Your task to perform on an android device: find snoozed emails in the gmail app Image 0: 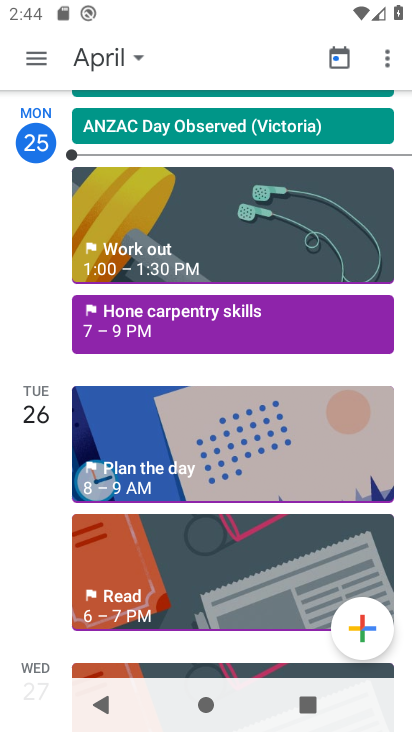
Step 0: press home button
Your task to perform on an android device: find snoozed emails in the gmail app Image 1: 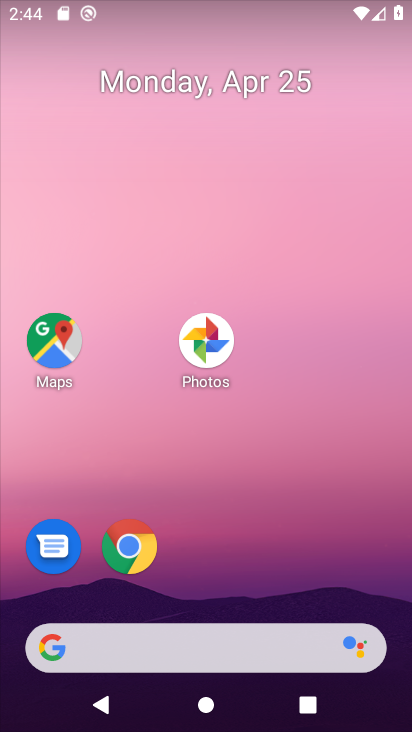
Step 1: drag from (301, 526) to (395, 165)
Your task to perform on an android device: find snoozed emails in the gmail app Image 2: 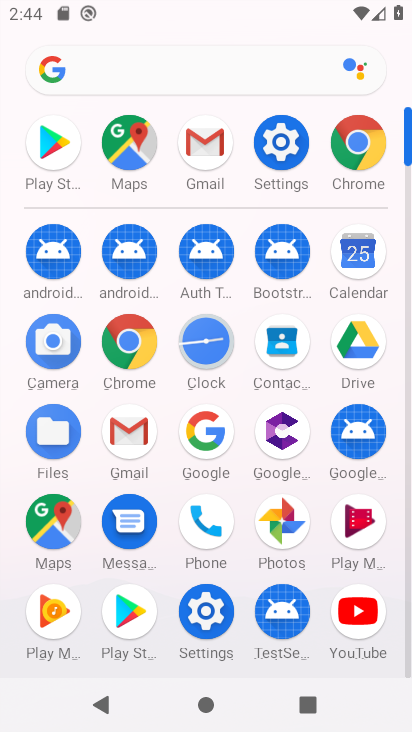
Step 2: click (201, 137)
Your task to perform on an android device: find snoozed emails in the gmail app Image 3: 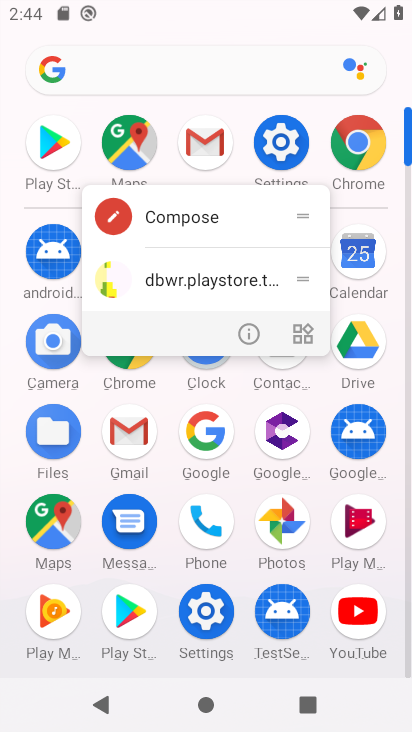
Step 3: click (200, 138)
Your task to perform on an android device: find snoozed emails in the gmail app Image 4: 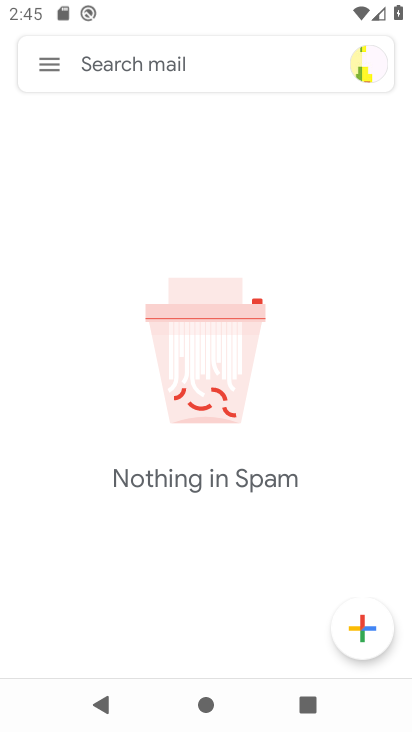
Step 4: click (55, 60)
Your task to perform on an android device: find snoozed emails in the gmail app Image 5: 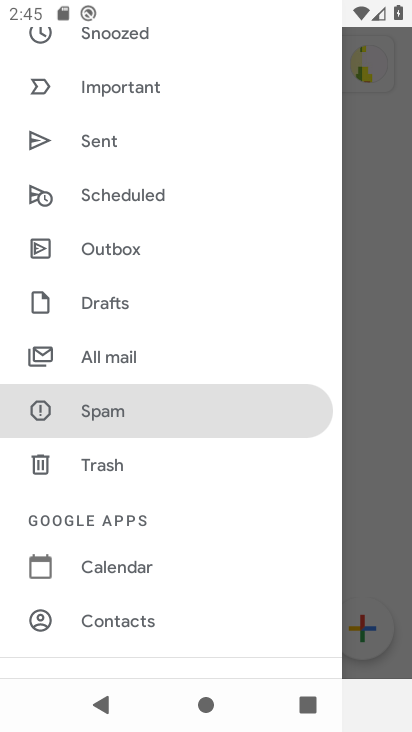
Step 5: drag from (140, 138) to (142, 400)
Your task to perform on an android device: find snoozed emails in the gmail app Image 6: 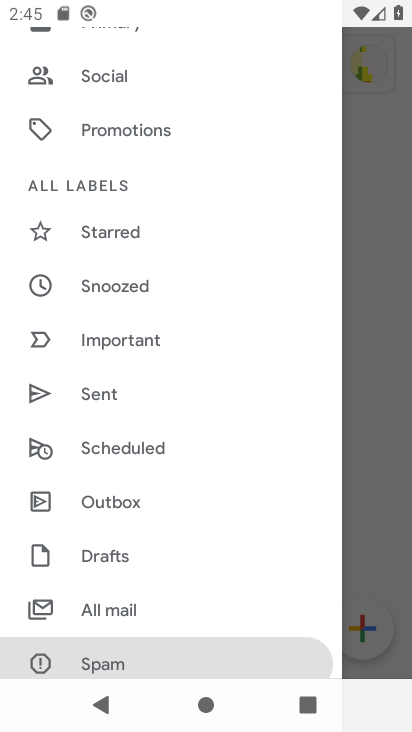
Step 6: click (119, 285)
Your task to perform on an android device: find snoozed emails in the gmail app Image 7: 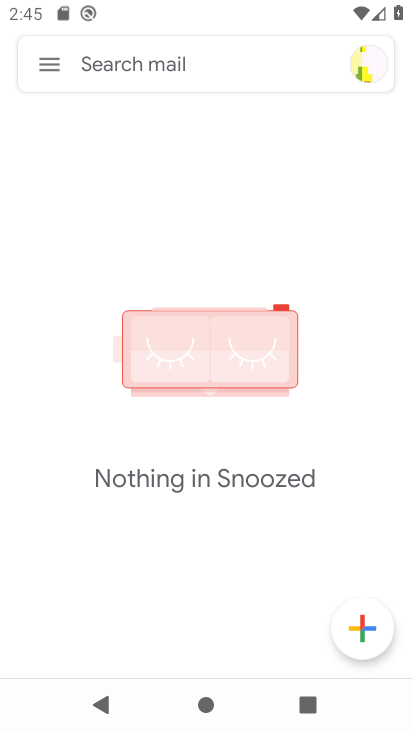
Step 7: task complete